Your task to perform on an android device: set the stopwatch Image 0: 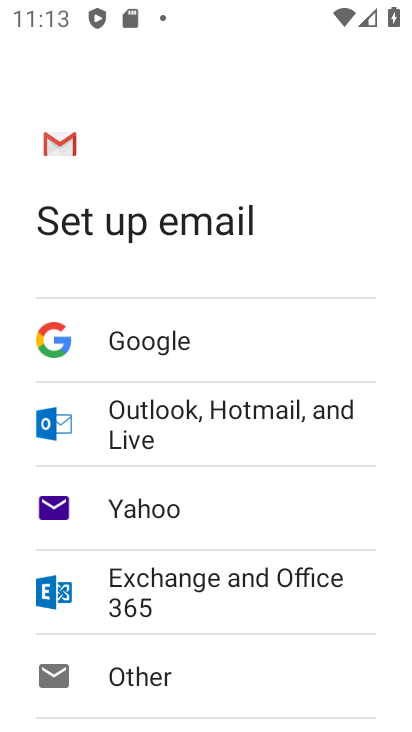
Step 0: press home button
Your task to perform on an android device: set the stopwatch Image 1: 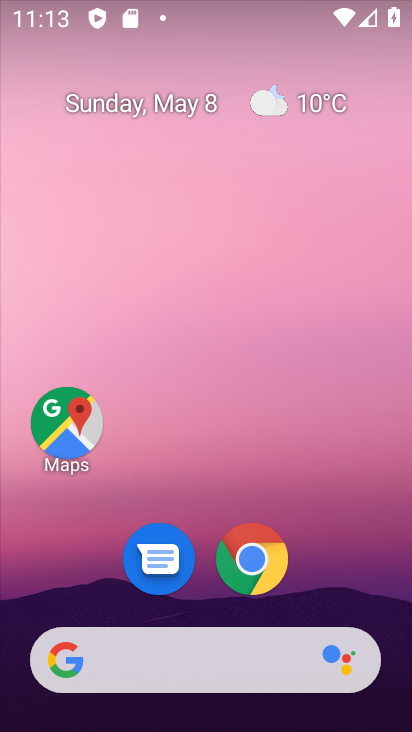
Step 1: drag from (208, 593) to (229, 2)
Your task to perform on an android device: set the stopwatch Image 2: 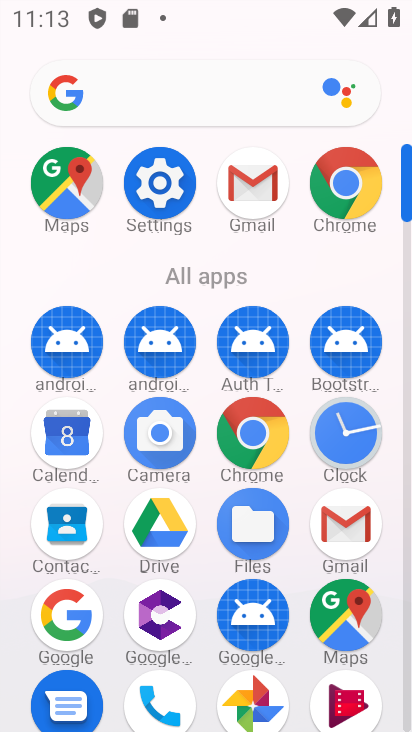
Step 2: click (354, 441)
Your task to perform on an android device: set the stopwatch Image 3: 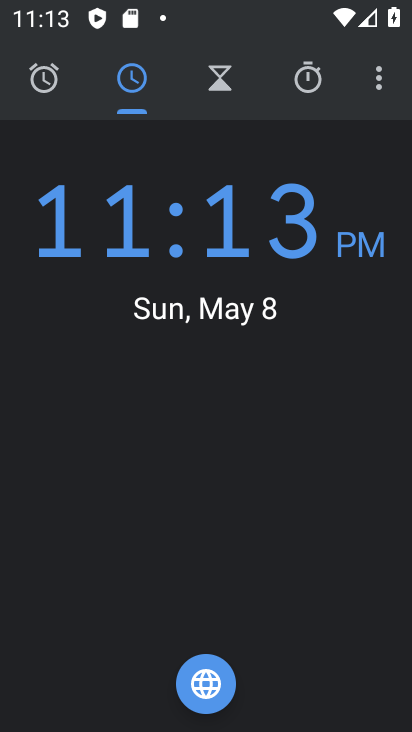
Step 3: click (308, 79)
Your task to perform on an android device: set the stopwatch Image 4: 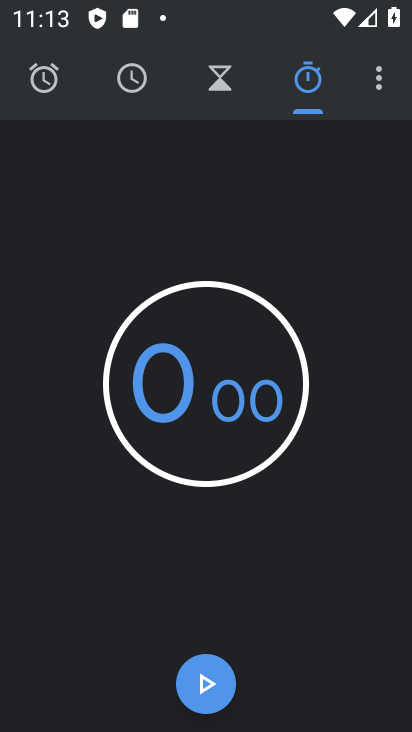
Step 4: click (204, 678)
Your task to perform on an android device: set the stopwatch Image 5: 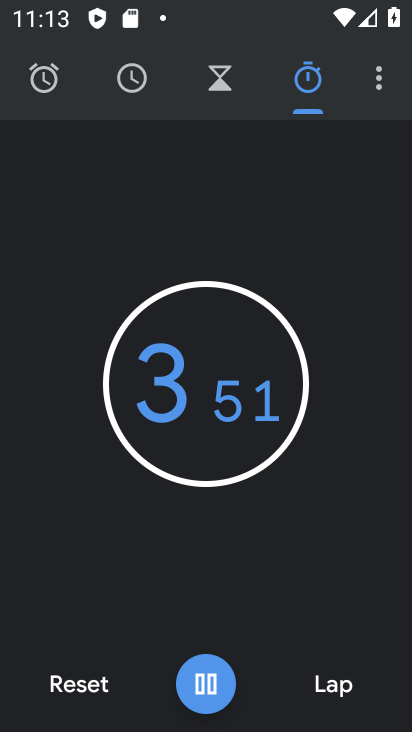
Step 5: task complete